Your task to perform on an android device: Go to Yahoo.com Image 0: 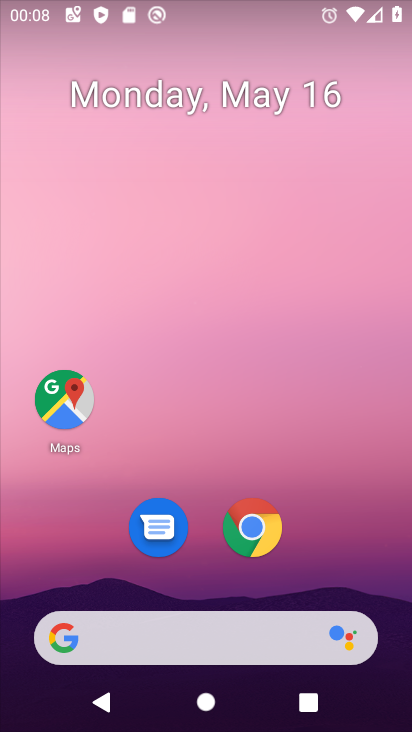
Step 0: drag from (344, 552) to (335, 89)
Your task to perform on an android device: Go to Yahoo.com Image 1: 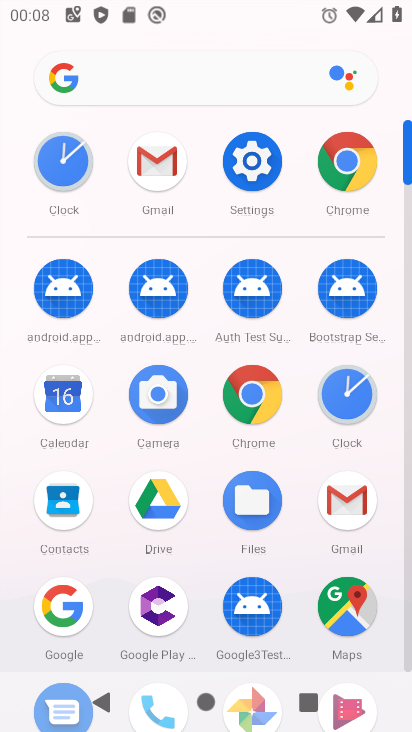
Step 1: click (331, 173)
Your task to perform on an android device: Go to Yahoo.com Image 2: 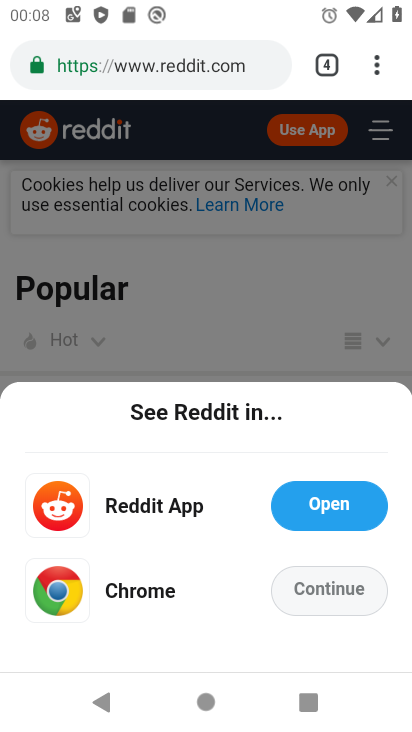
Step 2: click (341, 588)
Your task to perform on an android device: Go to Yahoo.com Image 3: 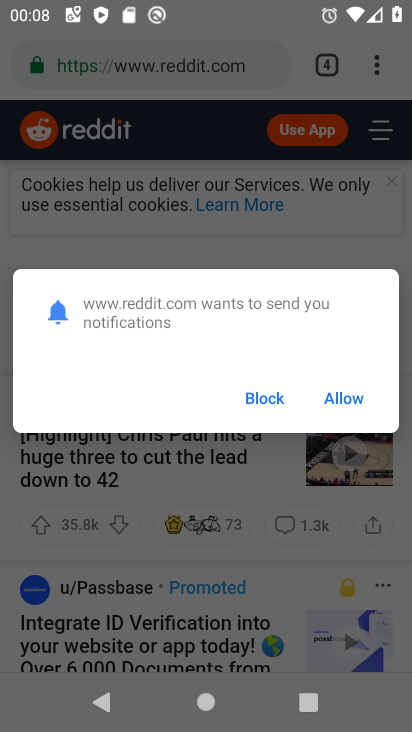
Step 3: click (276, 388)
Your task to perform on an android device: Go to Yahoo.com Image 4: 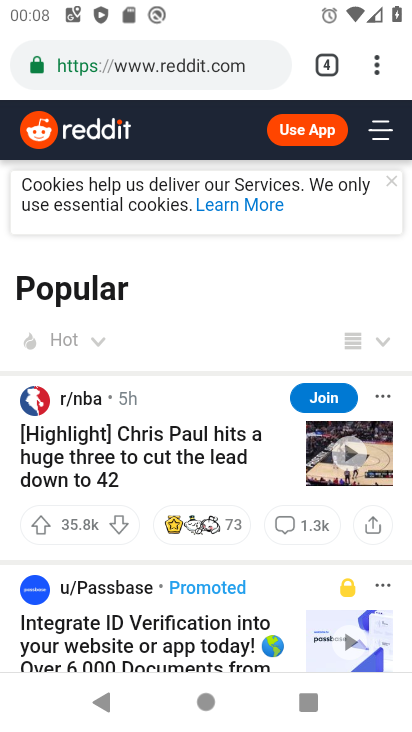
Step 4: click (211, 68)
Your task to perform on an android device: Go to Yahoo.com Image 5: 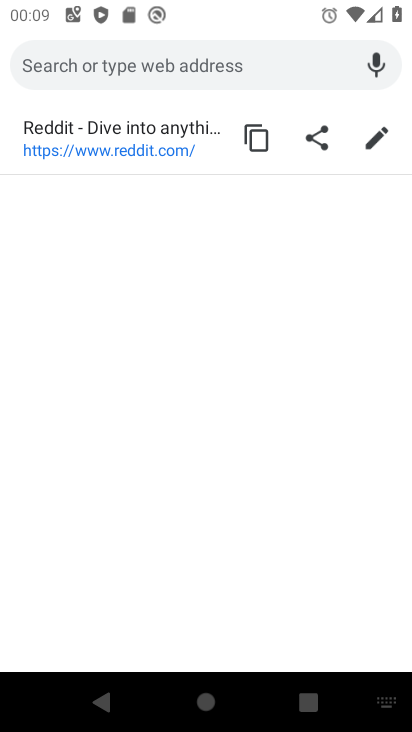
Step 5: type "yahoo.com"
Your task to perform on an android device: Go to Yahoo.com Image 6: 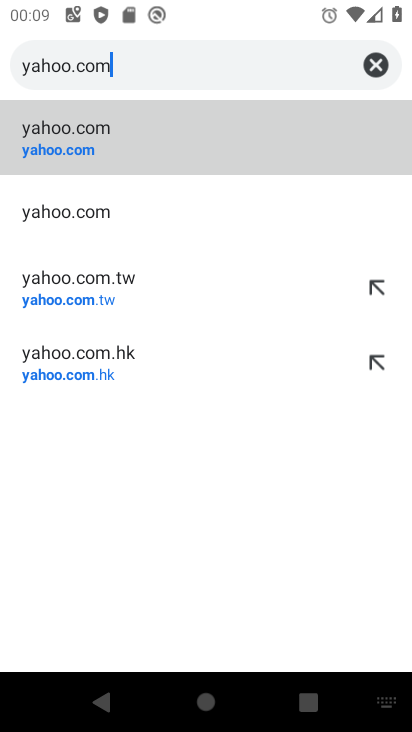
Step 6: click (133, 145)
Your task to perform on an android device: Go to Yahoo.com Image 7: 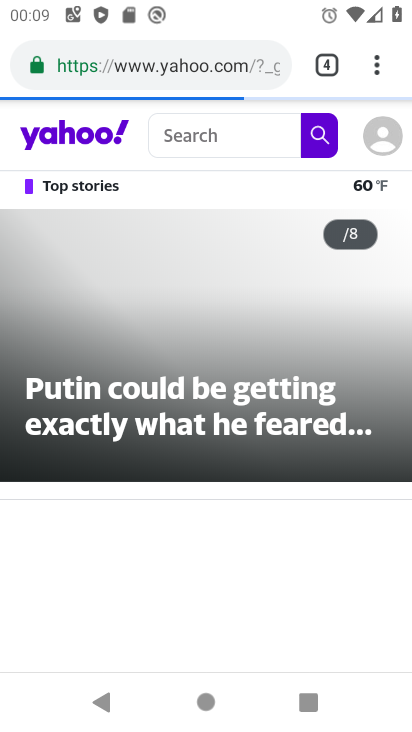
Step 7: task complete